Your task to perform on an android device: Check the weather Image 0: 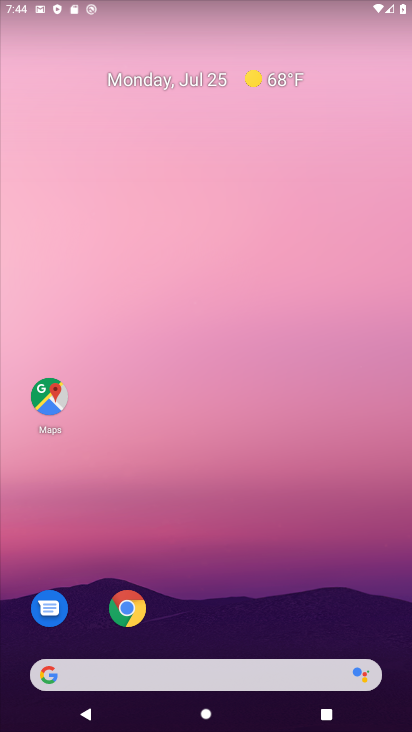
Step 0: click (283, 80)
Your task to perform on an android device: Check the weather Image 1: 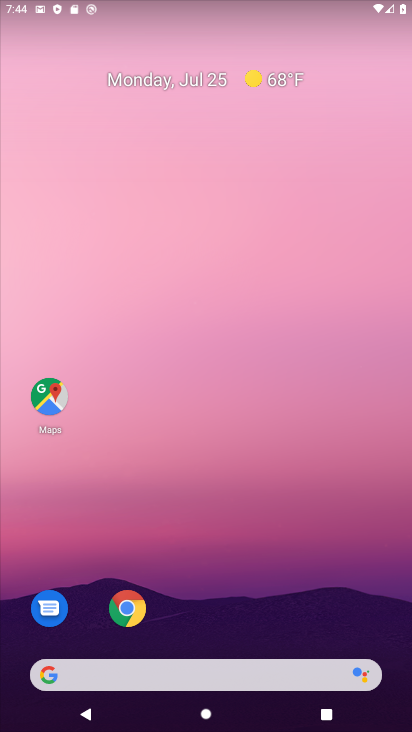
Step 1: click (111, 669)
Your task to perform on an android device: Check the weather Image 2: 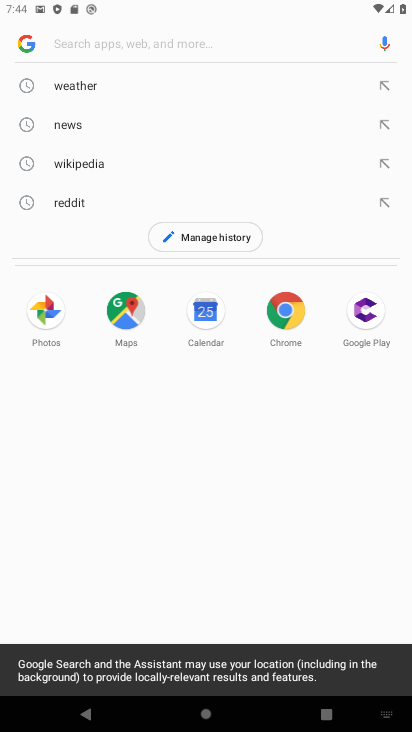
Step 2: click (72, 81)
Your task to perform on an android device: Check the weather Image 3: 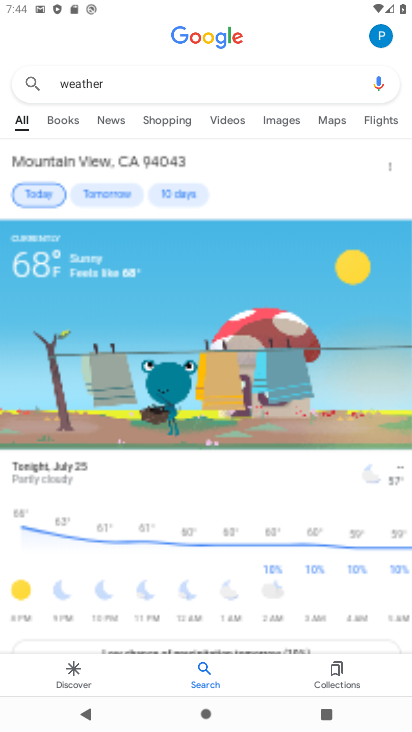
Step 3: task complete